Your task to perform on an android device: Open Google Maps and go to "Timeline" Image 0: 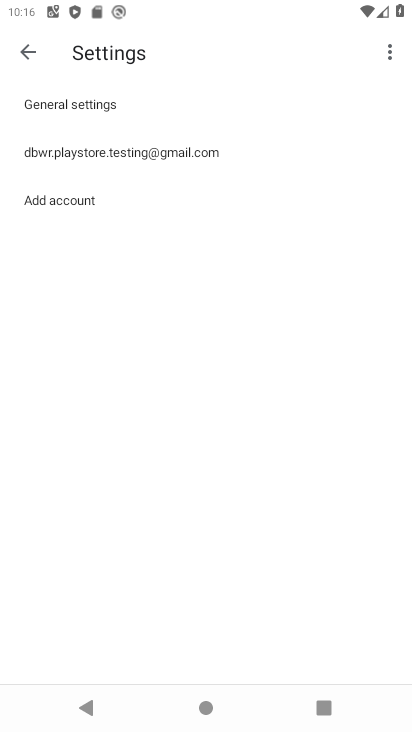
Step 0: press home button
Your task to perform on an android device: Open Google Maps and go to "Timeline" Image 1: 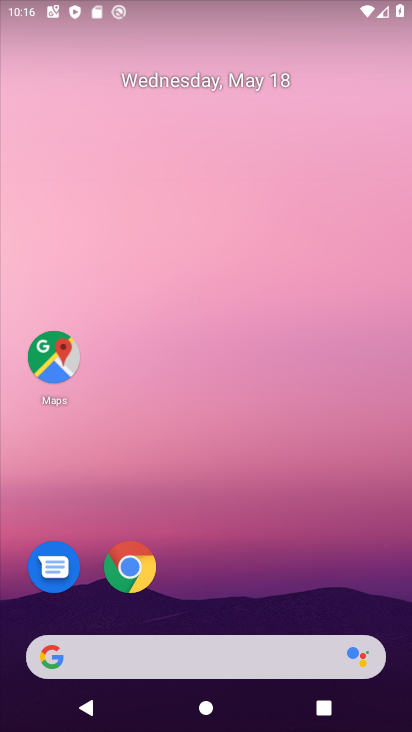
Step 1: drag from (293, 687) to (361, 206)
Your task to perform on an android device: Open Google Maps and go to "Timeline" Image 2: 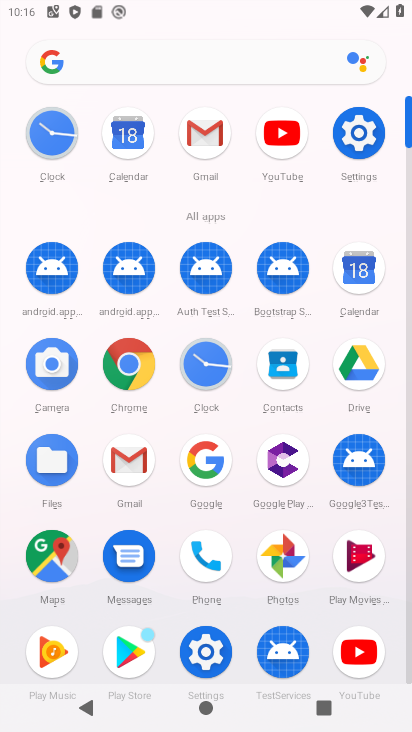
Step 2: click (62, 546)
Your task to perform on an android device: Open Google Maps and go to "Timeline" Image 3: 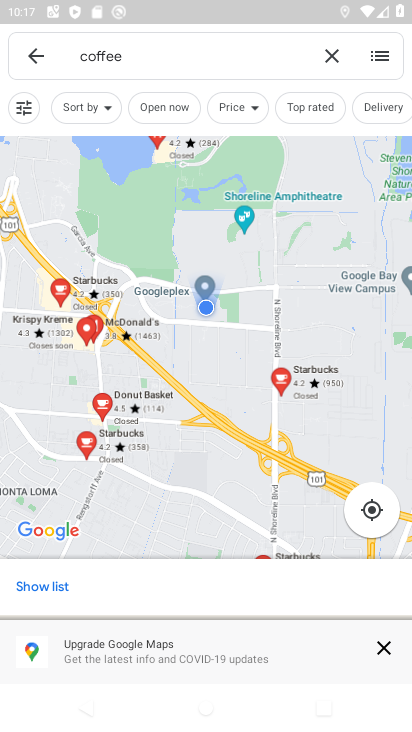
Step 3: click (30, 61)
Your task to perform on an android device: Open Google Maps and go to "Timeline" Image 4: 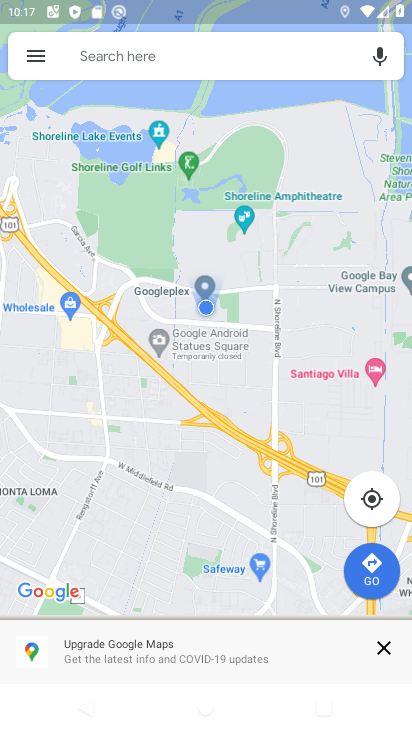
Step 4: click (383, 639)
Your task to perform on an android device: Open Google Maps and go to "Timeline" Image 5: 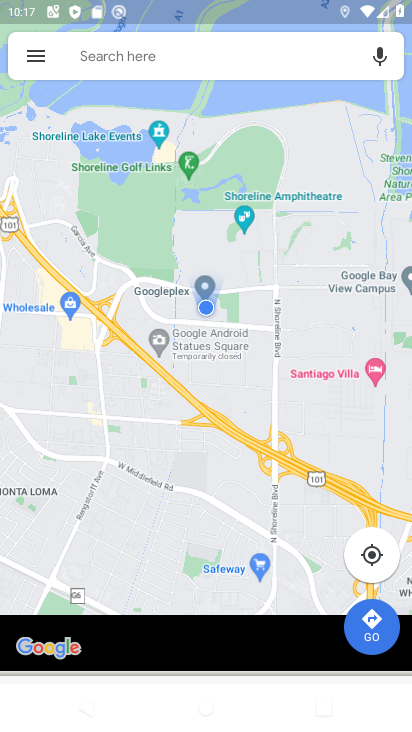
Step 5: click (116, 54)
Your task to perform on an android device: Open Google Maps and go to "Timeline" Image 6: 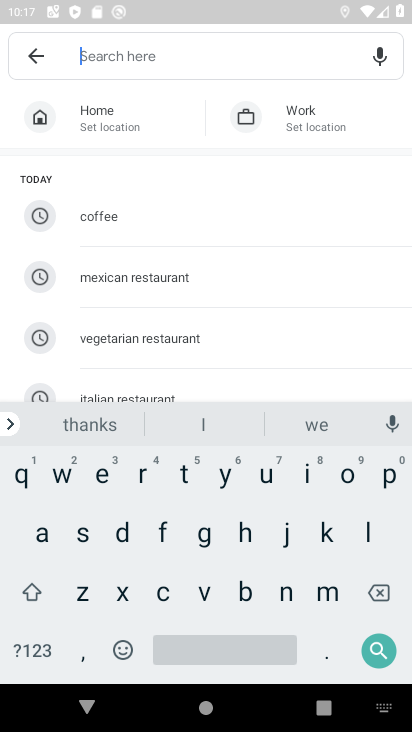
Step 6: click (26, 58)
Your task to perform on an android device: Open Google Maps and go to "Timeline" Image 7: 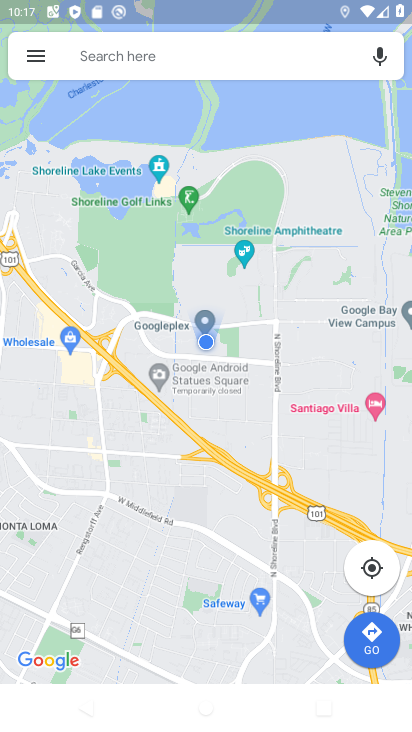
Step 7: click (28, 65)
Your task to perform on an android device: Open Google Maps and go to "Timeline" Image 8: 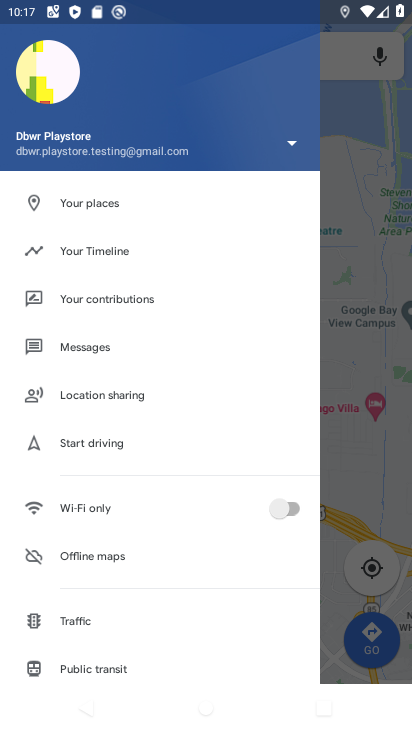
Step 8: click (92, 255)
Your task to perform on an android device: Open Google Maps and go to "Timeline" Image 9: 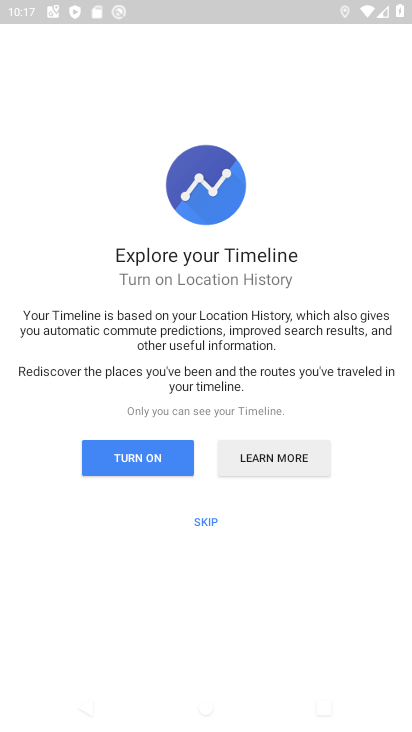
Step 9: click (209, 511)
Your task to perform on an android device: Open Google Maps and go to "Timeline" Image 10: 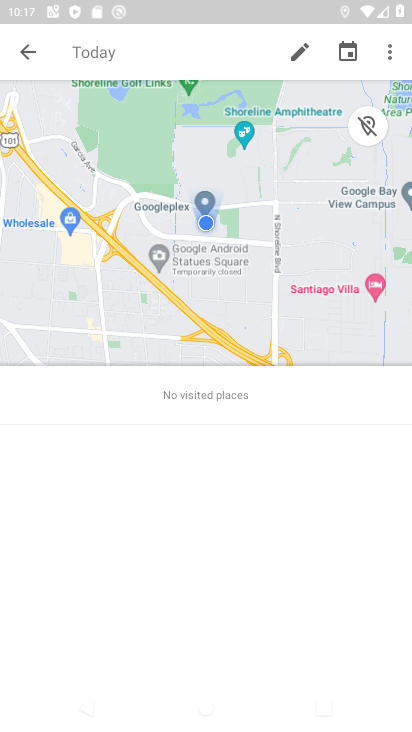
Step 10: task complete